Your task to perform on an android device: Open Google Maps and go to "Timeline" Image 0: 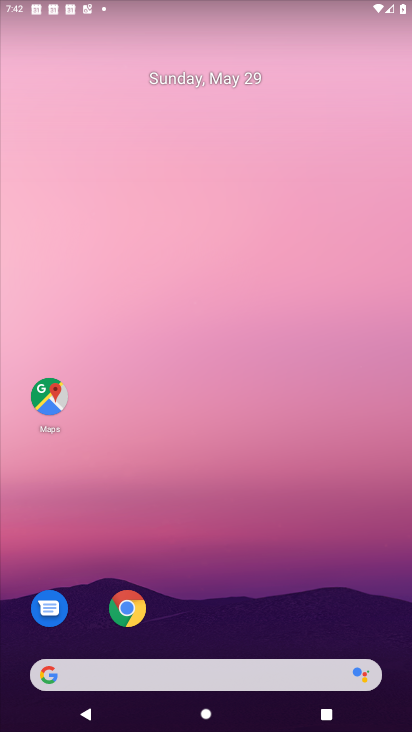
Step 0: click (48, 385)
Your task to perform on an android device: Open Google Maps and go to "Timeline" Image 1: 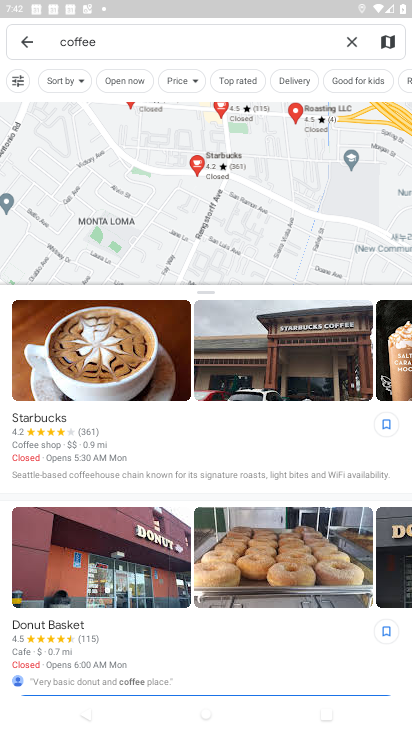
Step 1: click (15, 36)
Your task to perform on an android device: Open Google Maps and go to "Timeline" Image 2: 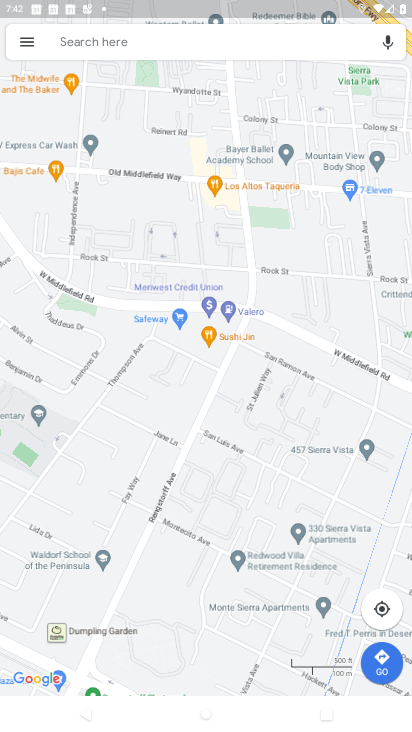
Step 2: click (26, 42)
Your task to perform on an android device: Open Google Maps and go to "Timeline" Image 3: 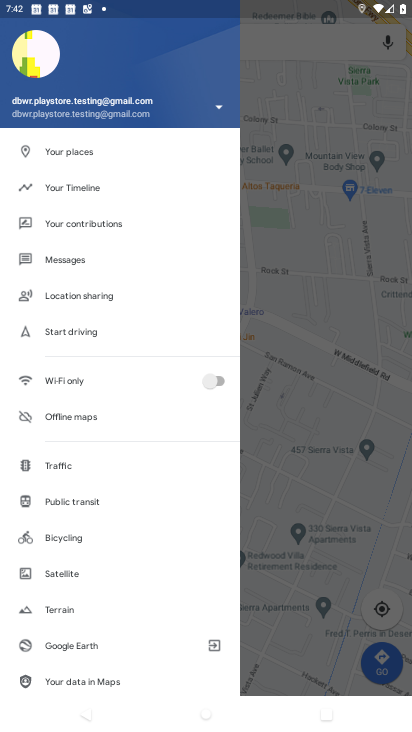
Step 3: click (69, 190)
Your task to perform on an android device: Open Google Maps and go to "Timeline" Image 4: 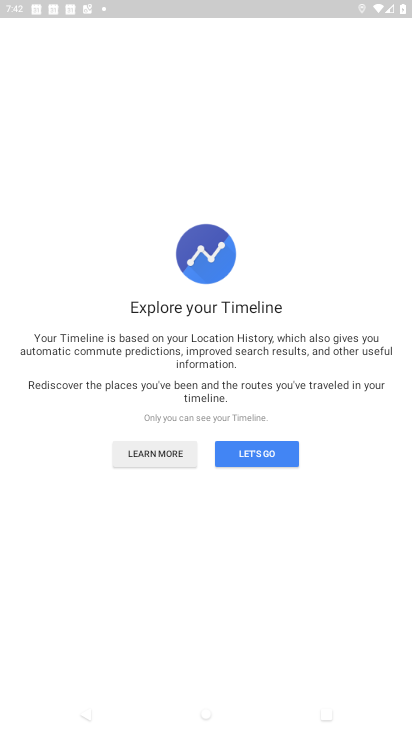
Step 4: task complete